Your task to perform on an android device: change alarm snooze length Image 0: 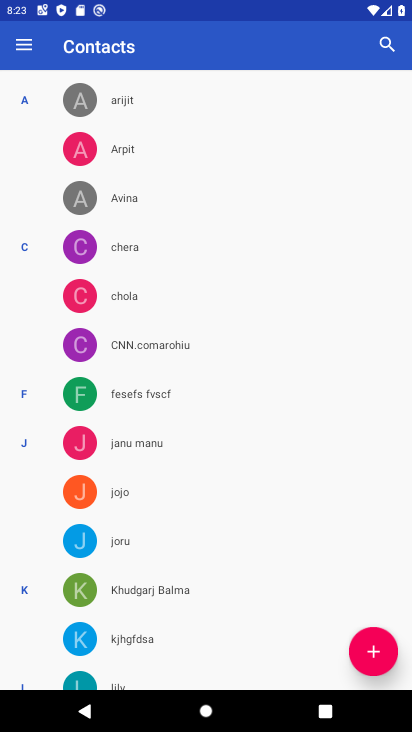
Step 0: press home button
Your task to perform on an android device: change alarm snooze length Image 1: 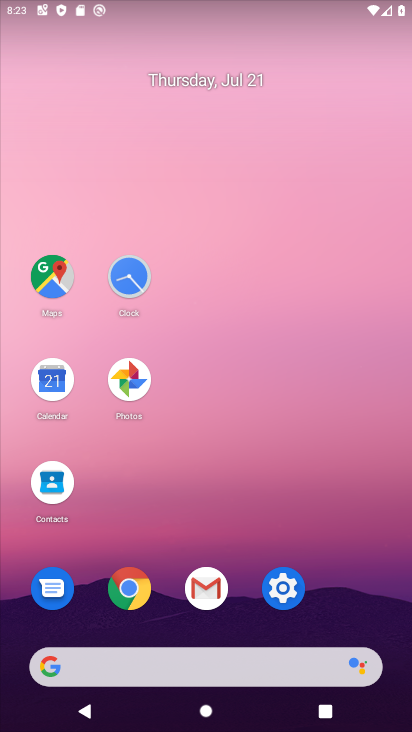
Step 1: click (131, 263)
Your task to perform on an android device: change alarm snooze length Image 2: 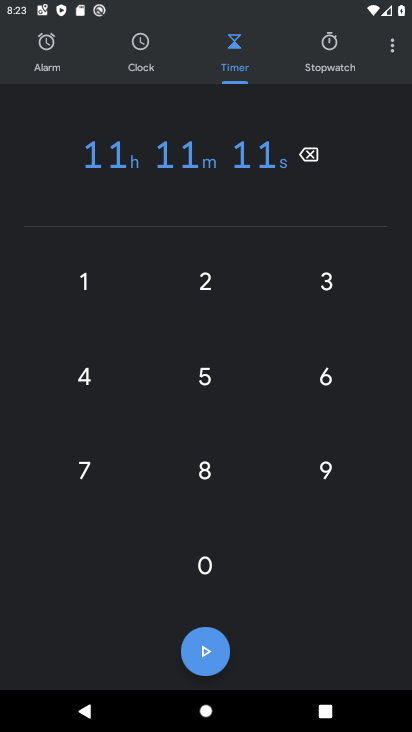
Step 2: click (391, 49)
Your task to perform on an android device: change alarm snooze length Image 3: 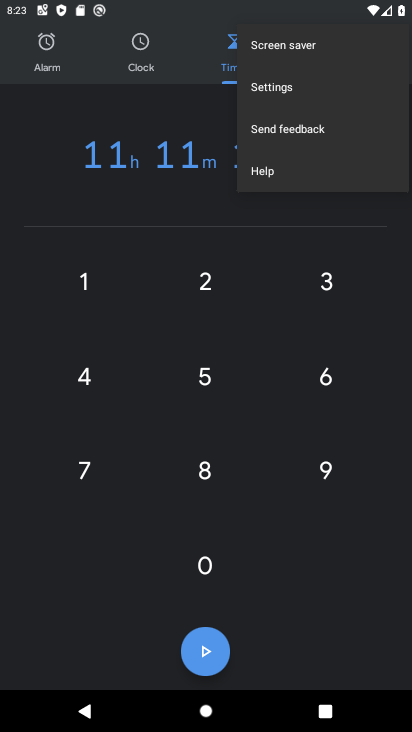
Step 3: click (277, 91)
Your task to perform on an android device: change alarm snooze length Image 4: 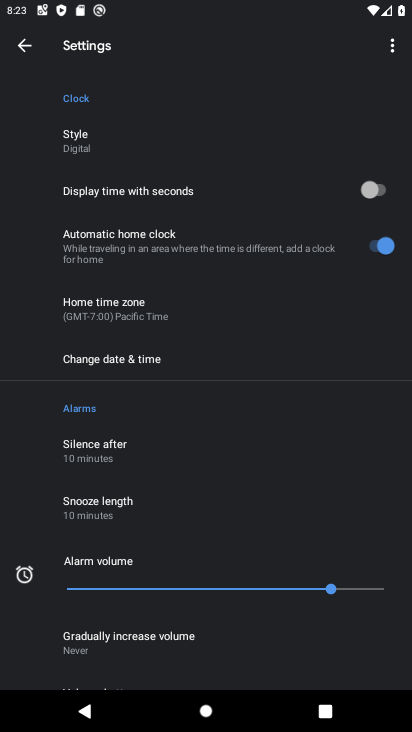
Step 4: click (104, 502)
Your task to perform on an android device: change alarm snooze length Image 5: 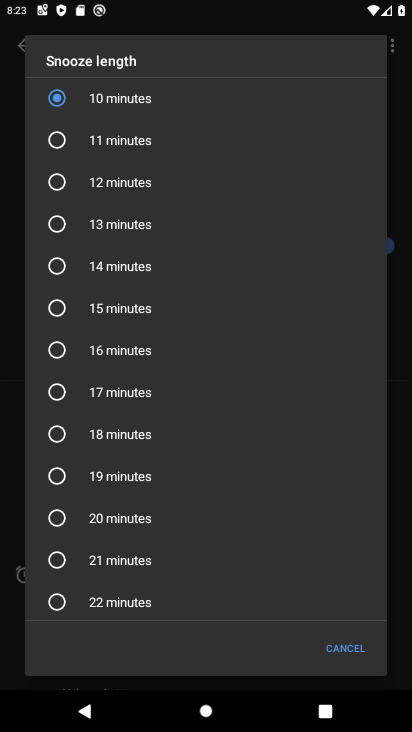
Step 5: click (54, 144)
Your task to perform on an android device: change alarm snooze length Image 6: 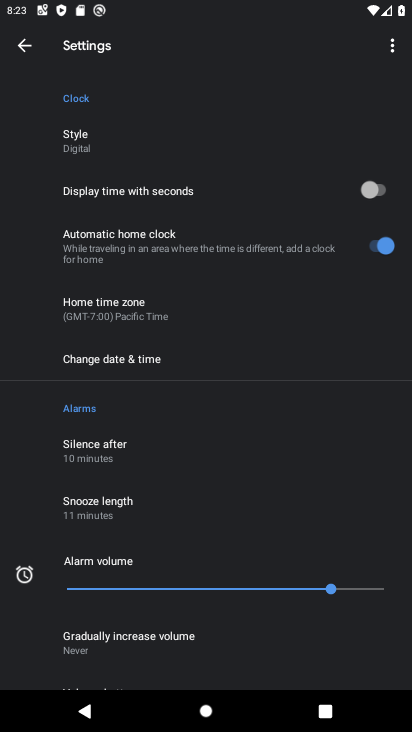
Step 6: task complete